Your task to perform on an android device: Search for macbook on newegg, select the first entry, add it to the cart, then select checkout. Image 0: 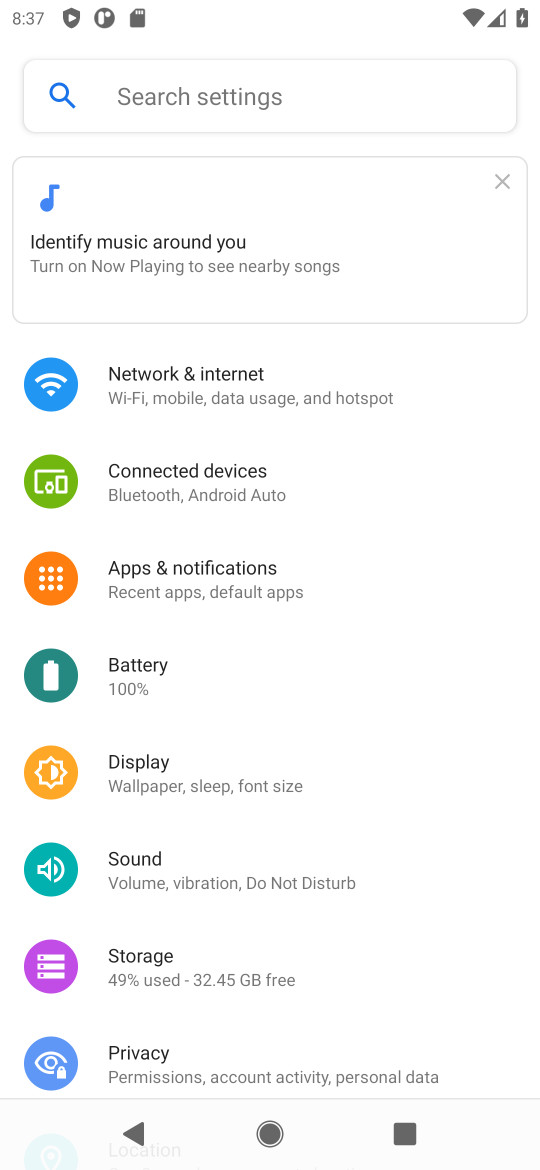
Step 0: press home button
Your task to perform on an android device: Search for macbook on newegg, select the first entry, add it to the cart, then select checkout. Image 1: 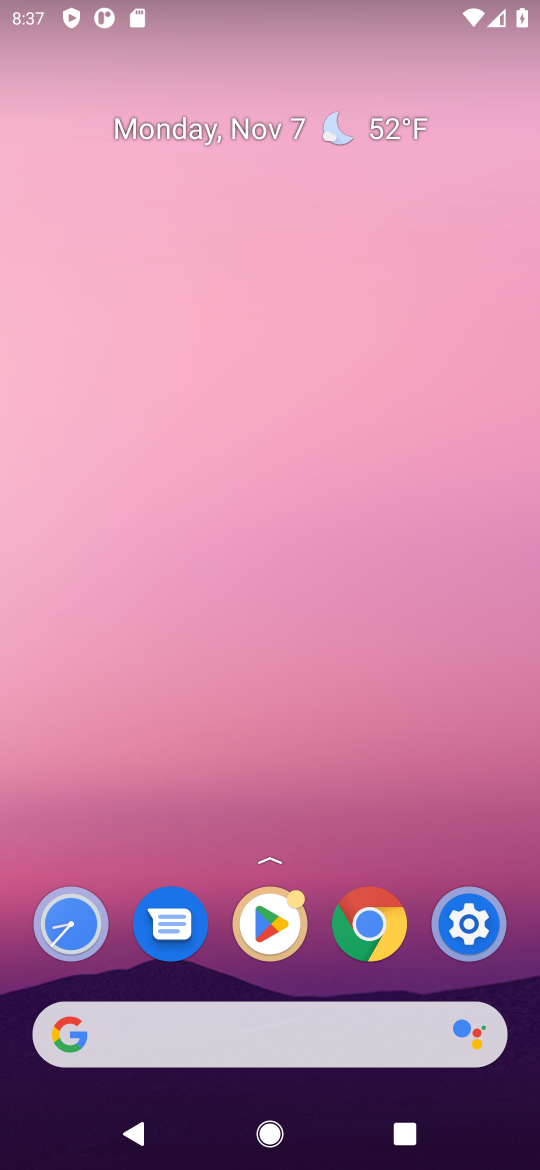
Step 1: click (362, 922)
Your task to perform on an android device: Search for macbook on newegg, select the first entry, add it to the cart, then select checkout. Image 2: 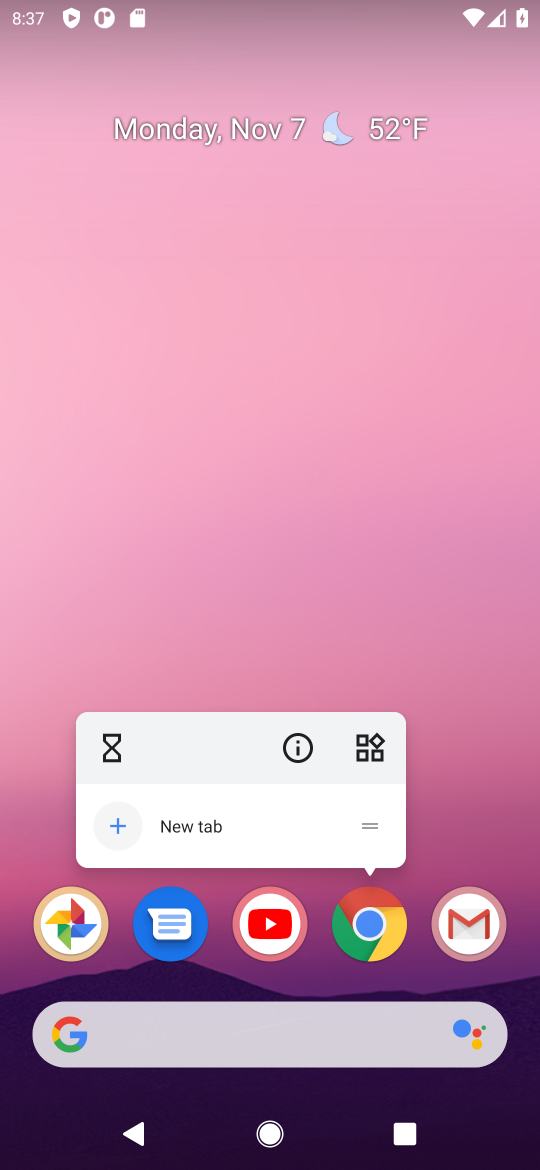
Step 2: click (362, 922)
Your task to perform on an android device: Search for macbook on newegg, select the first entry, add it to the cart, then select checkout. Image 3: 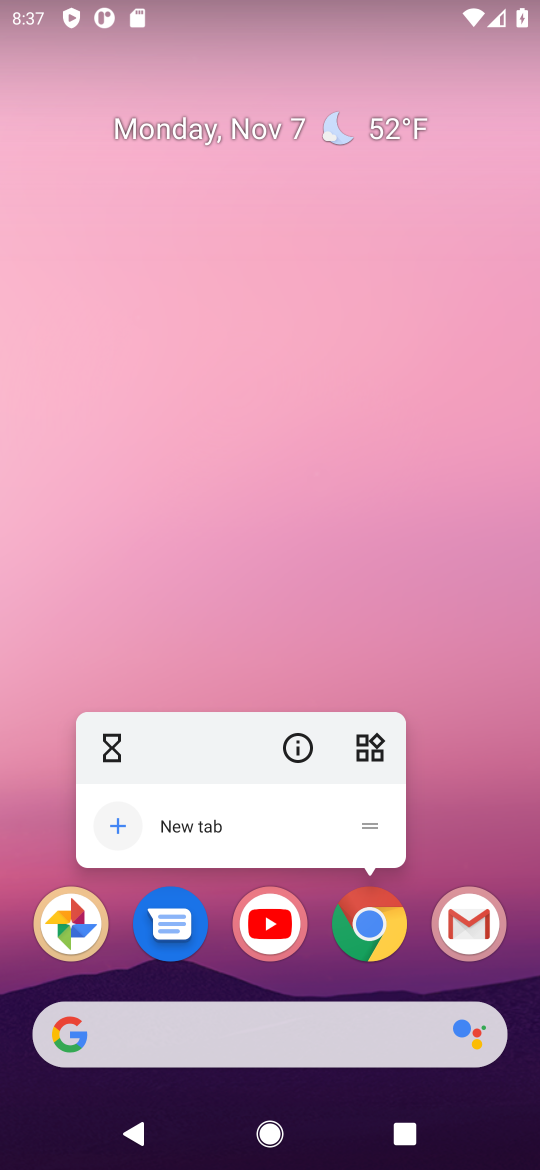
Step 3: click (362, 922)
Your task to perform on an android device: Search for macbook on newegg, select the first entry, add it to the cart, then select checkout. Image 4: 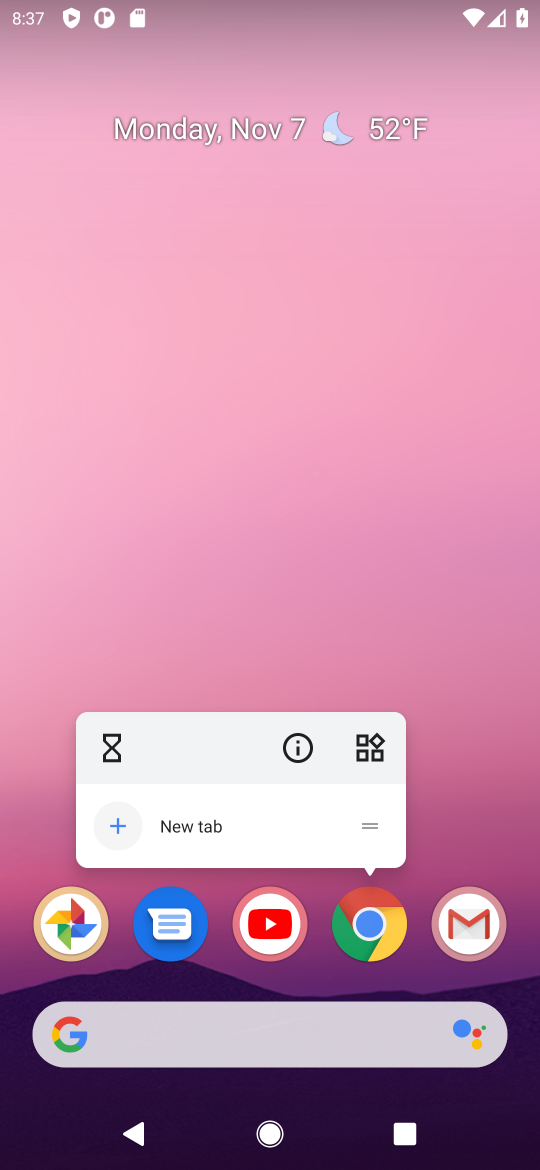
Step 4: click (362, 922)
Your task to perform on an android device: Search for macbook on newegg, select the first entry, add it to the cart, then select checkout. Image 5: 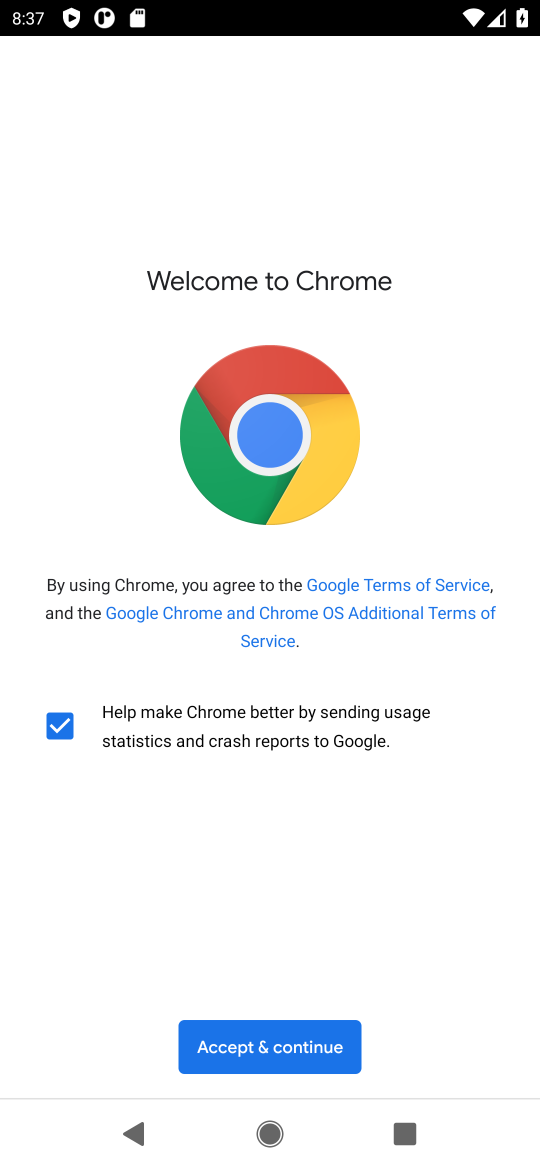
Step 5: click (254, 1050)
Your task to perform on an android device: Search for macbook on newegg, select the first entry, add it to the cart, then select checkout. Image 6: 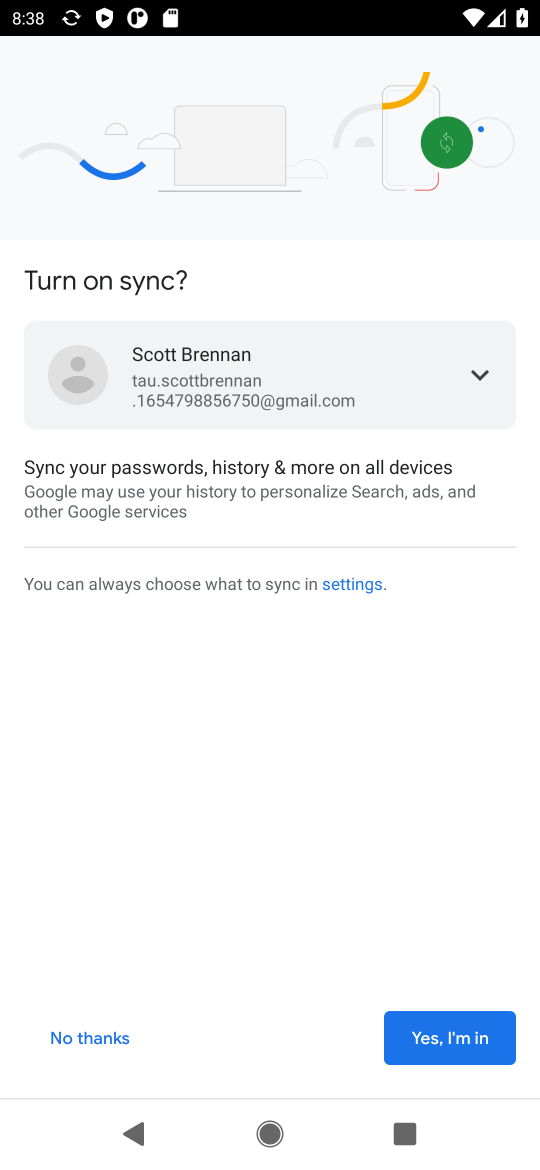
Step 6: click (434, 1053)
Your task to perform on an android device: Search for macbook on newegg, select the first entry, add it to the cart, then select checkout. Image 7: 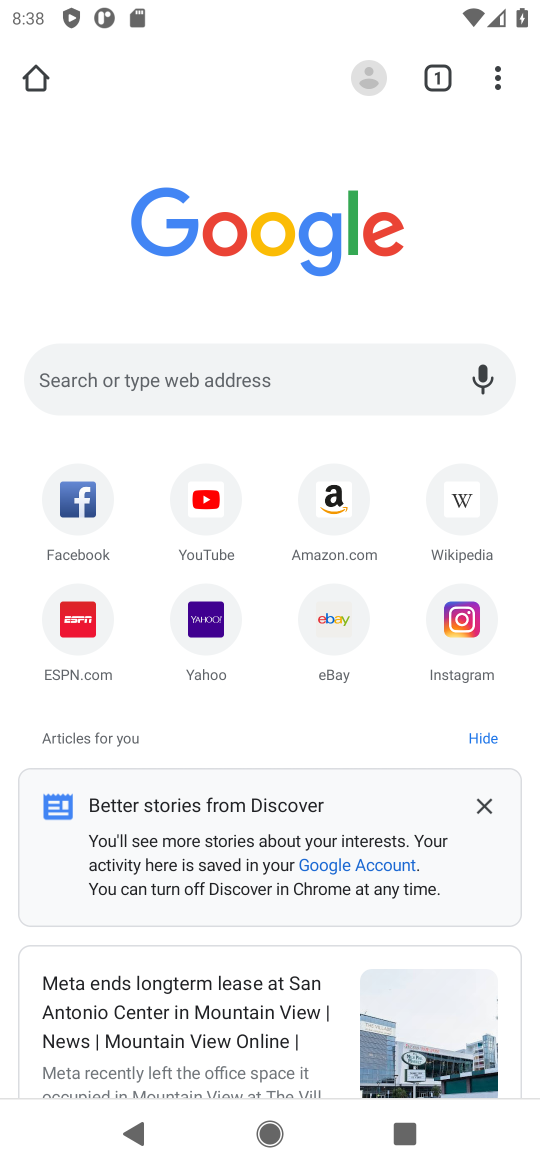
Step 7: click (210, 371)
Your task to perform on an android device: Search for macbook on newegg, select the first entry, add it to the cart, then select checkout. Image 8: 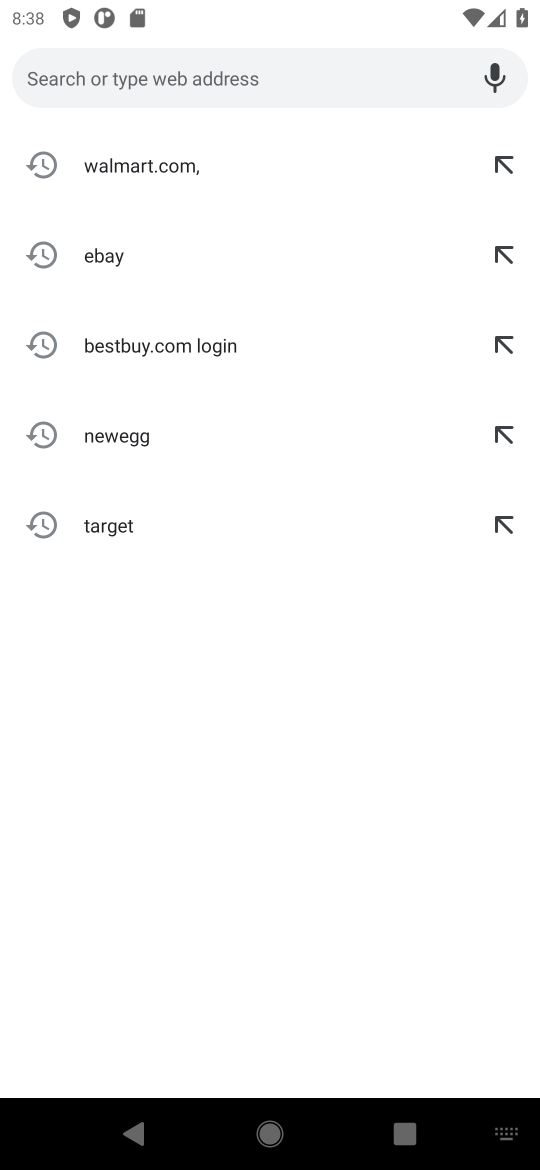
Step 8: type "newegg"
Your task to perform on an android device: Search for macbook on newegg, select the first entry, add it to the cart, then select checkout. Image 9: 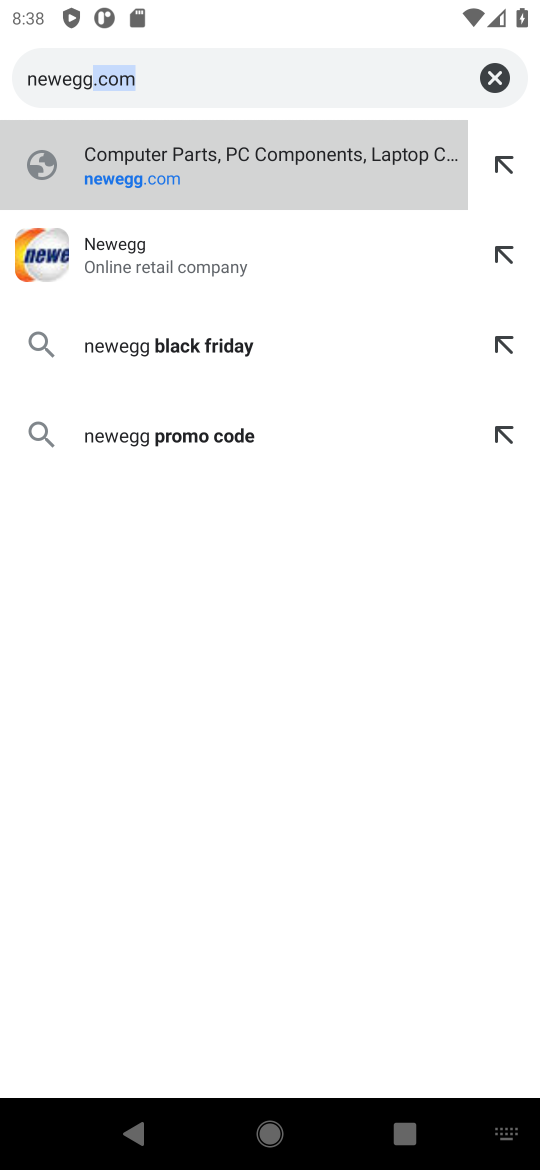
Step 9: click (258, 154)
Your task to perform on an android device: Search for macbook on newegg, select the first entry, add it to the cart, then select checkout. Image 10: 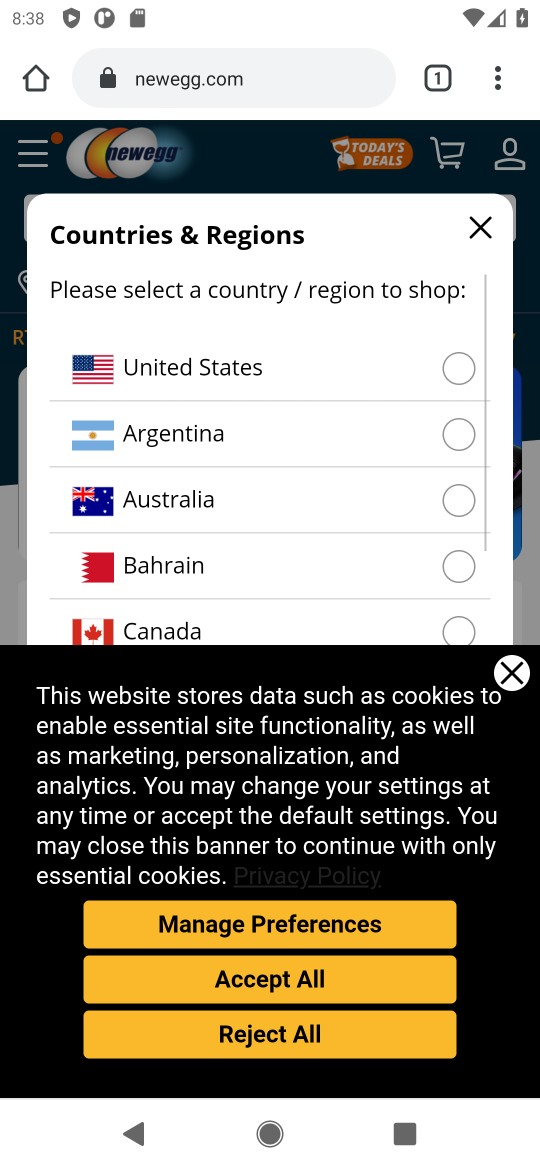
Step 10: click (342, 345)
Your task to perform on an android device: Search for macbook on newegg, select the first entry, add it to the cart, then select checkout. Image 11: 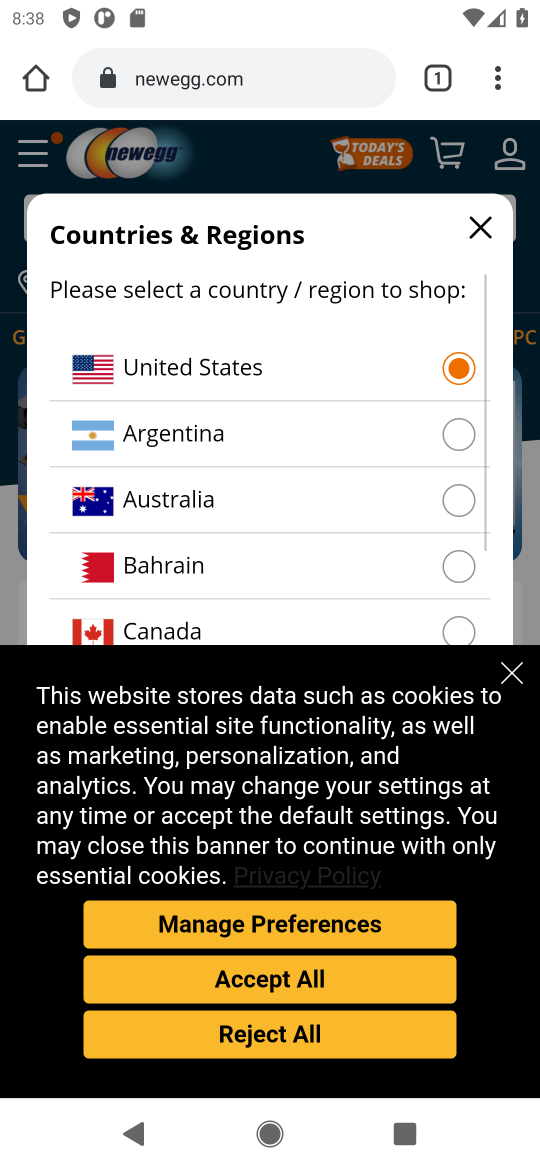
Step 11: click (223, 992)
Your task to perform on an android device: Search for macbook on newegg, select the first entry, add it to the cart, then select checkout. Image 12: 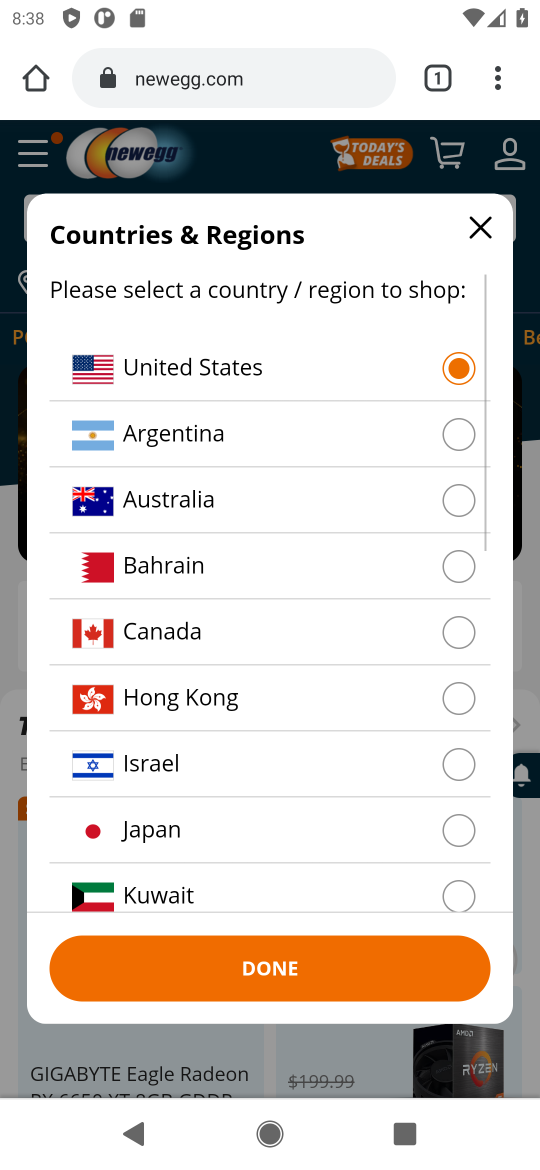
Step 12: click (261, 989)
Your task to perform on an android device: Search for macbook on newegg, select the first entry, add it to the cart, then select checkout. Image 13: 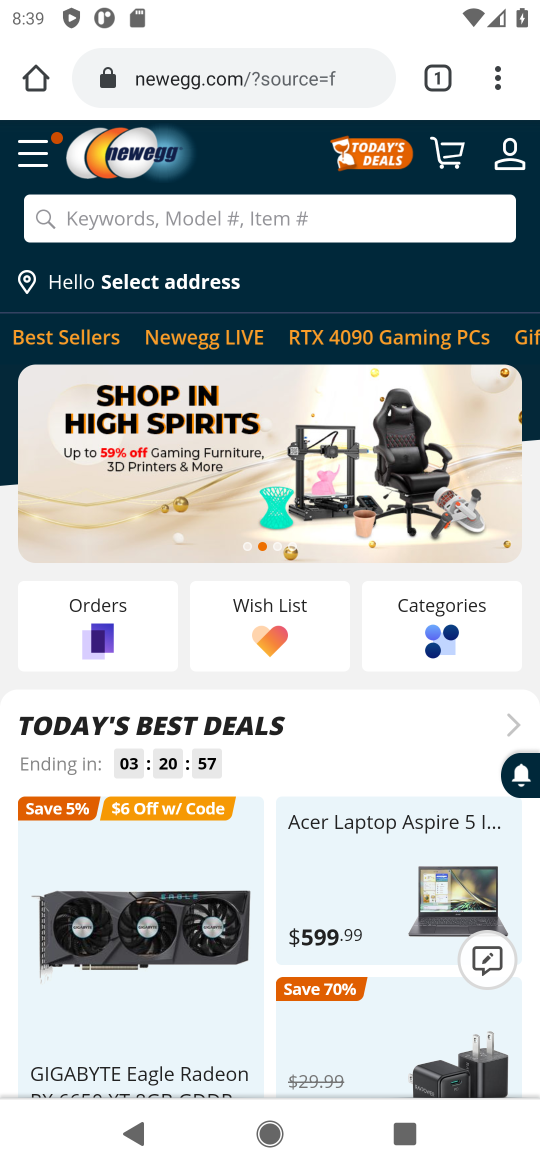
Step 13: click (275, 224)
Your task to perform on an android device: Search for macbook on newegg, select the first entry, add it to the cart, then select checkout. Image 14: 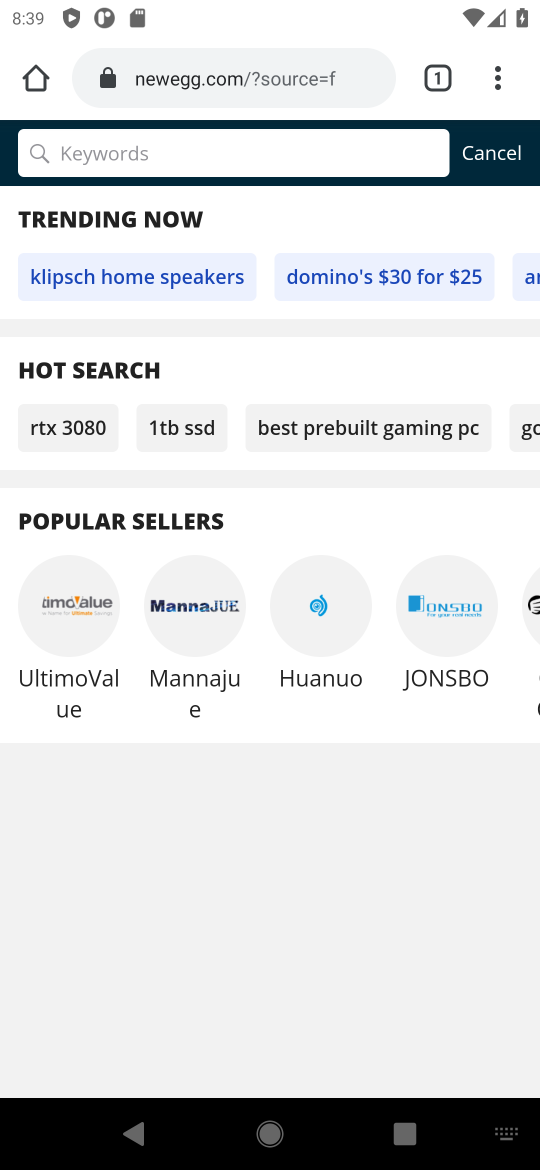
Step 14: type "macbook"
Your task to perform on an android device: Search for macbook on newegg, select the first entry, add it to the cart, then select checkout. Image 15: 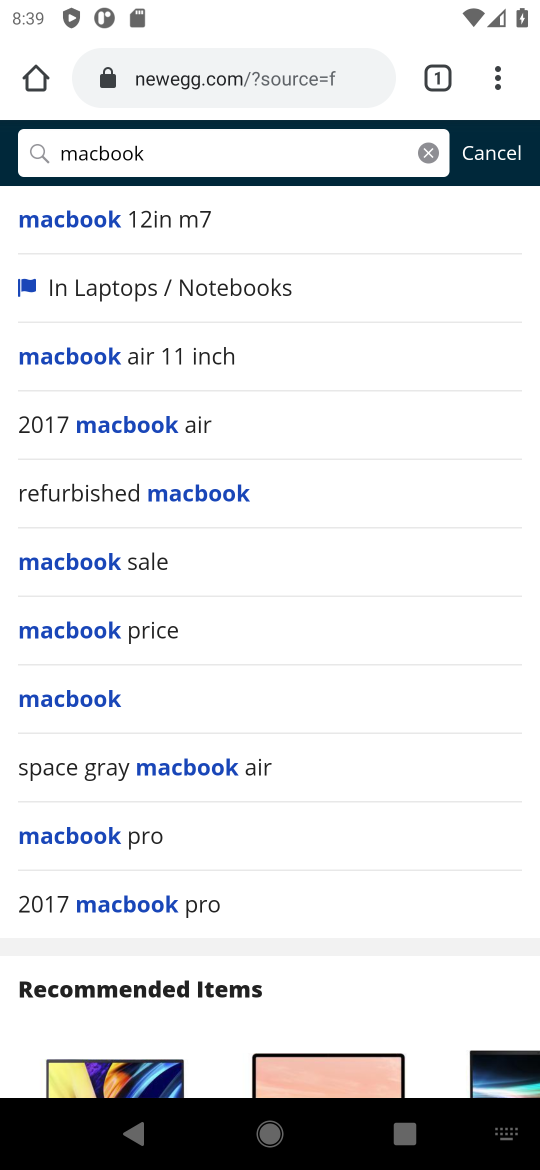
Step 15: press enter
Your task to perform on an android device: Search for macbook on newegg, select the first entry, add it to the cart, then select checkout. Image 16: 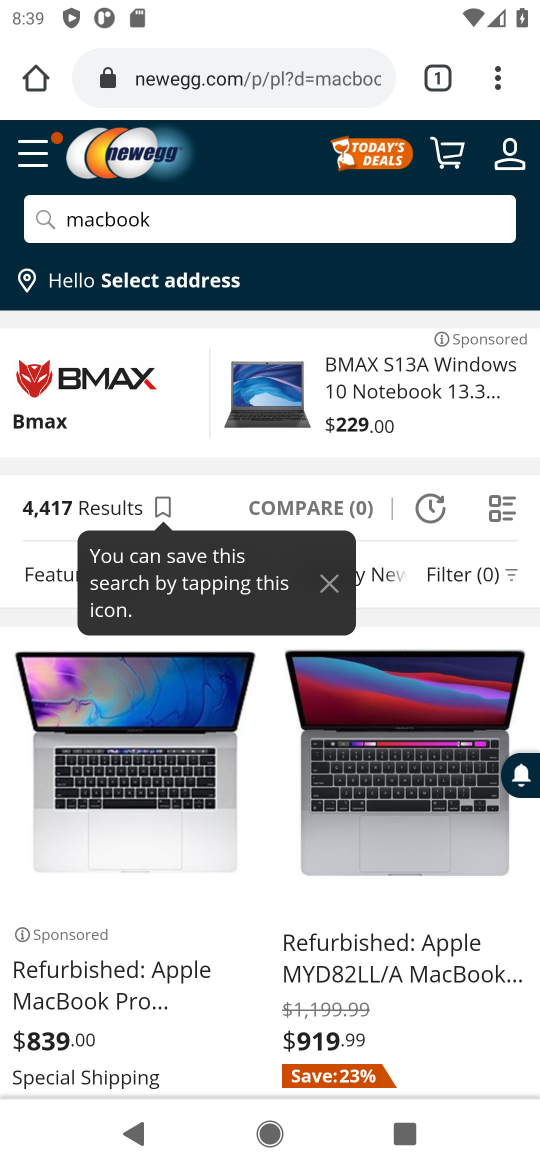
Step 16: click (119, 902)
Your task to perform on an android device: Search for macbook on newegg, select the first entry, add it to the cart, then select checkout. Image 17: 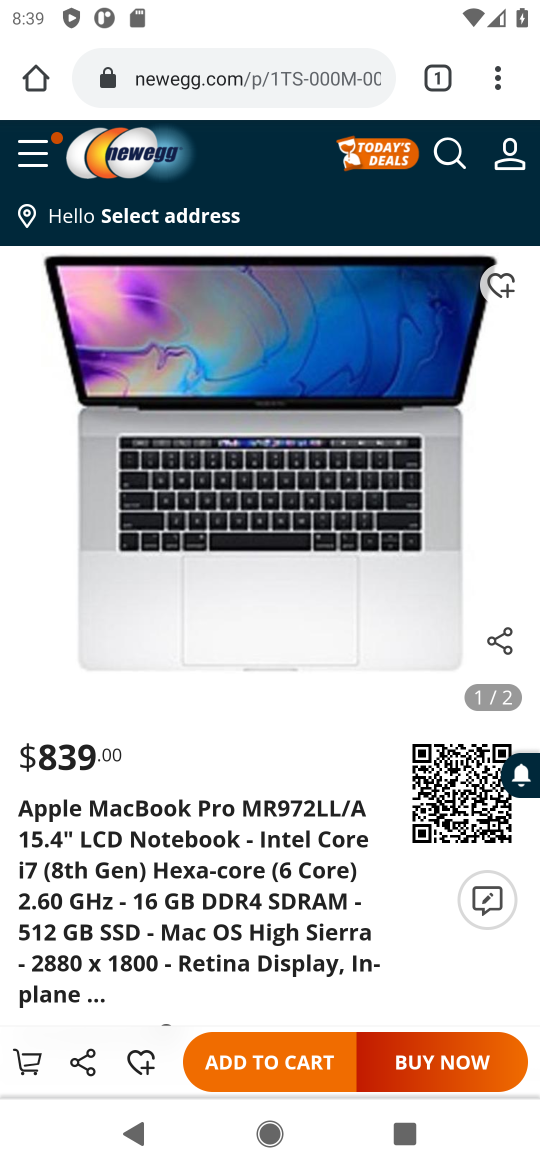
Step 17: click (263, 1054)
Your task to perform on an android device: Search for macbook on newegg, select the first entry, add it to the cart, then select checkout. Image 18: 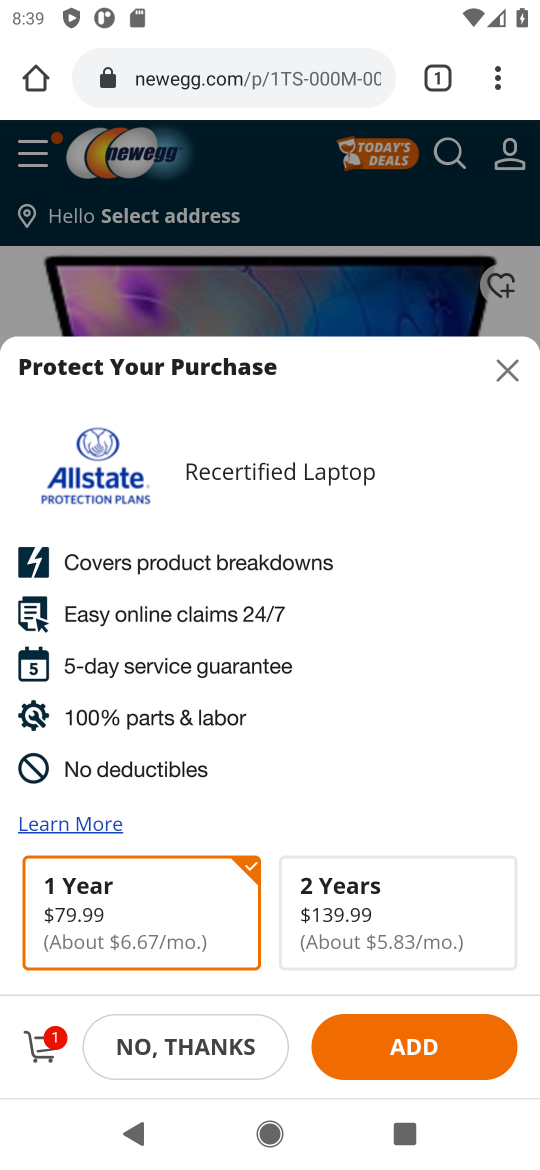
Step 18: click (515, 357)
Your task to perform on an android device: Search for macbook on newegg, select the first entry, add it to the cart, then select checkout. Image 19: 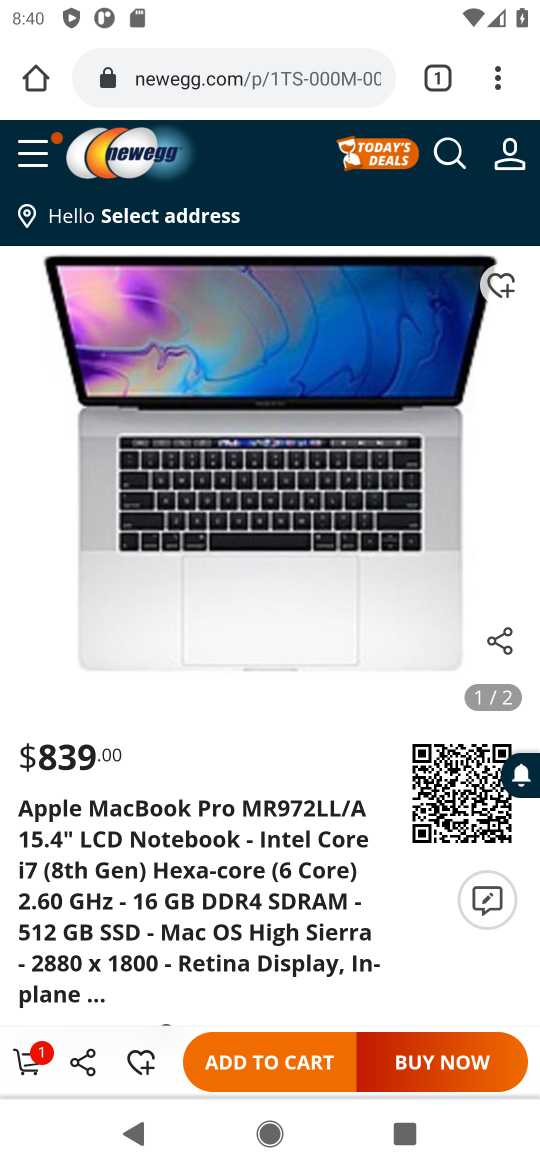
Step 19: click (35, 1059)
Your task to perform on an android device: Search for macbook on newegg, select the first entry, add it to the cart, then select checkout. Image 20: 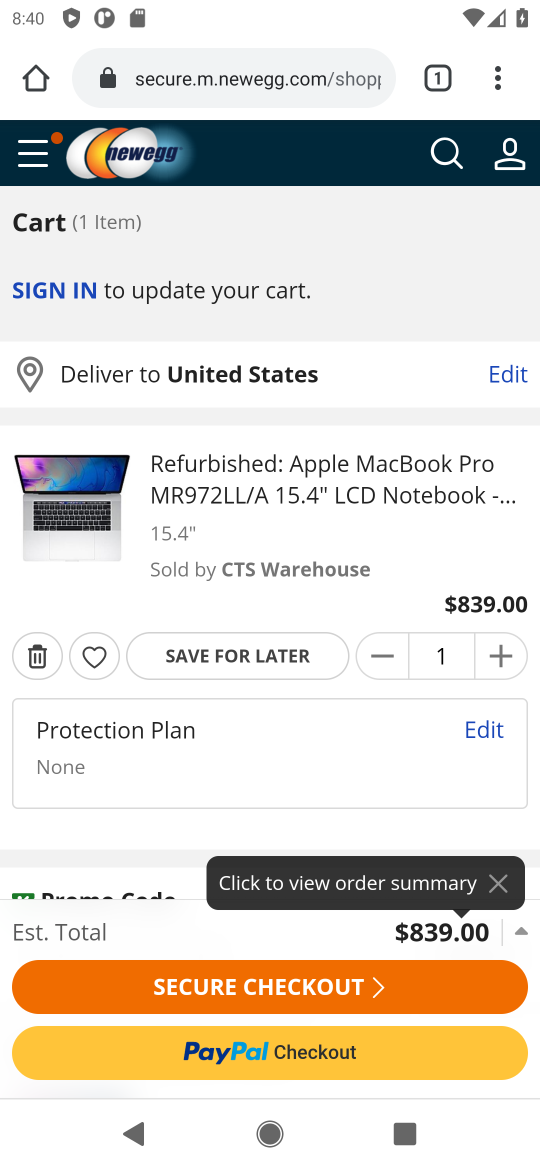
Step 20: task complete